Your task to perform on an android device: add a contact Image 0: 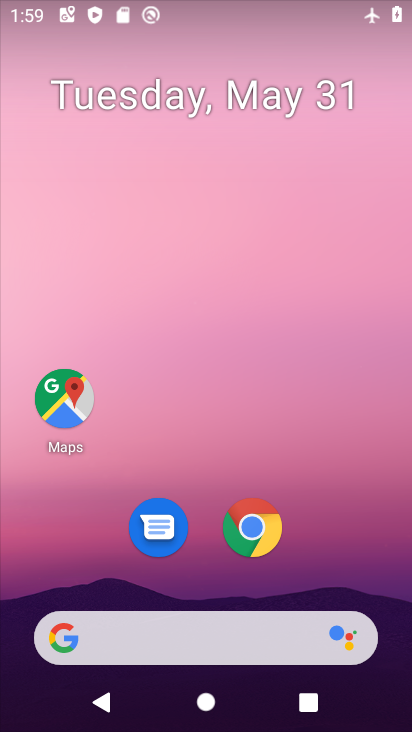
Step 0: drag from (335, 501) to (383, 57)
Your task to perform on an android device: add a contact Image 1: 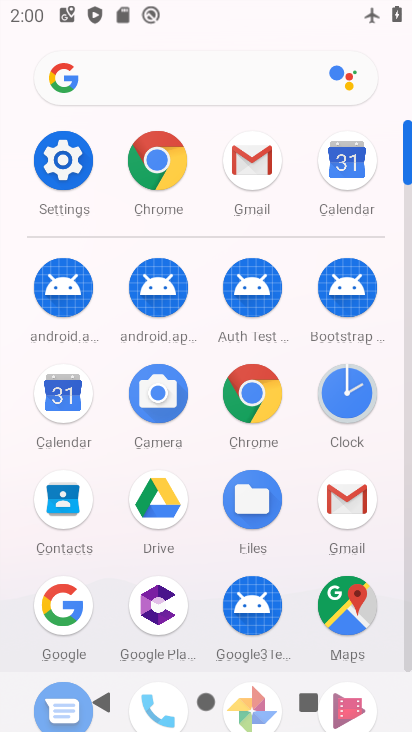
Step 1: drag from (384, 612) to (404, 356)
Your task to perform on an android device: add a contact Image 2: 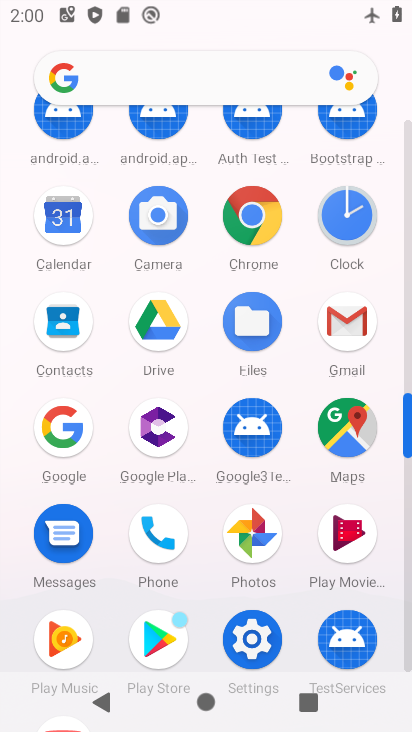
Step 2: click (154, 542)
Your task to perform on an android device: add a contact Image 3: 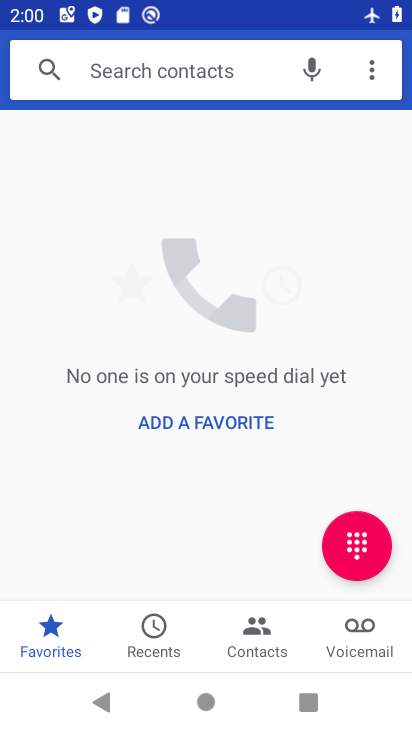
Step 3: click (251, 645)
Your task to perform on an android device: add a contact Image 4: 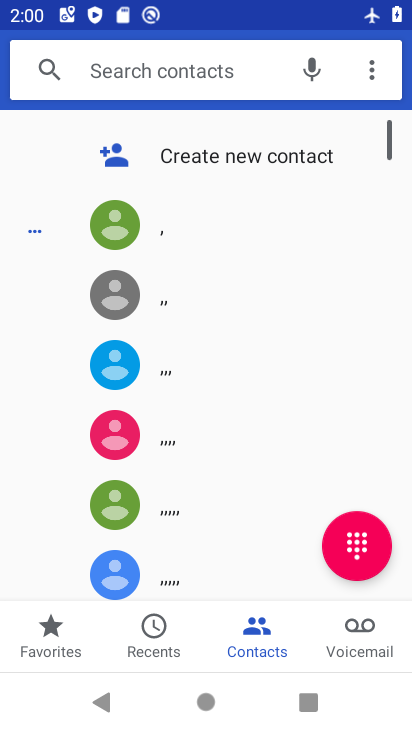
Step 4: click (136, 160)
Your task to perform on an android device: add a contact Image 5: 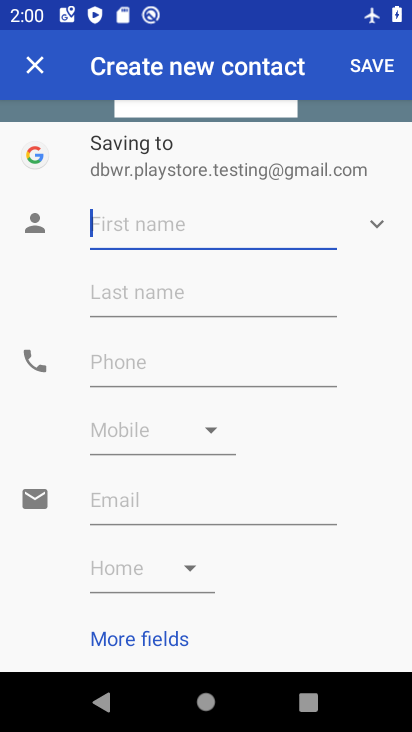
Step 5: type "trryr"
Your task to perform on an android device: add a contact Image 6: 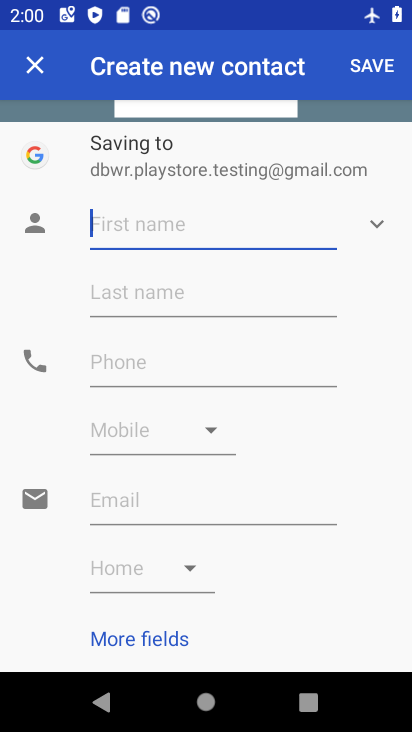
Step 6: click (105, 361)
Your task to perform on an android device: add a contact Image 7: 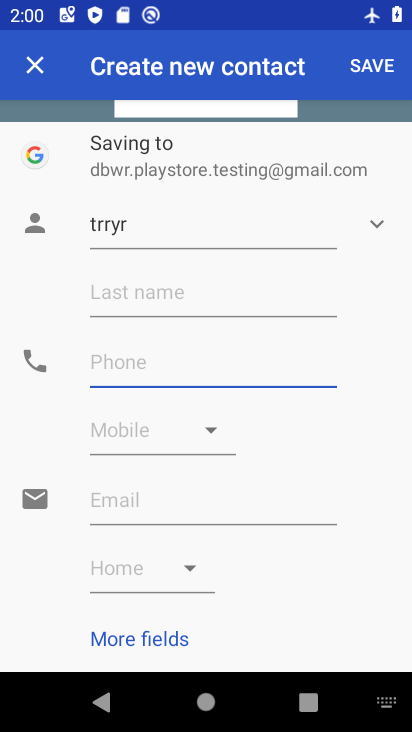
Step 7: type "764777777"
Your task to perform on an android device: add a contact Image 8: 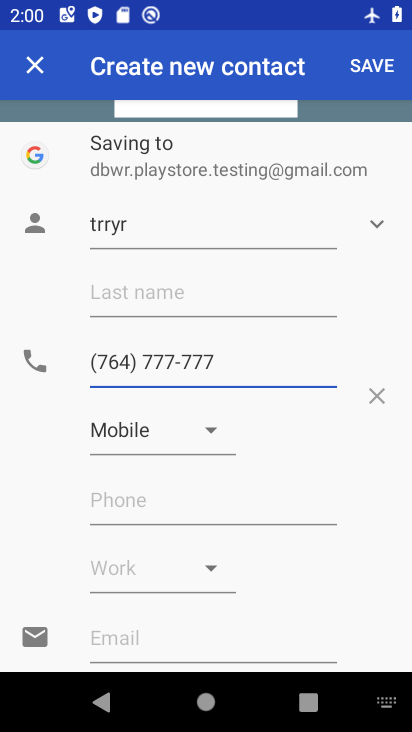
Step 8: click (363, 60)
Your task to perform on an android device: add a contact Image 9: 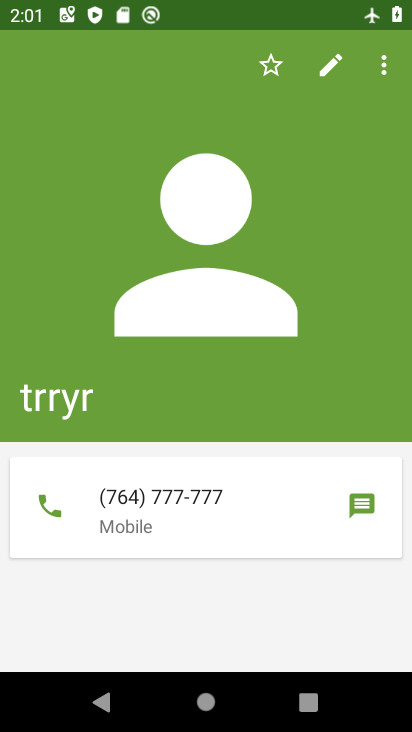
Step 9: task complete